Your task to perform on an android device: Add jbl flip 4 to the cart on bestbuy.com, then select checkout. Image 0: 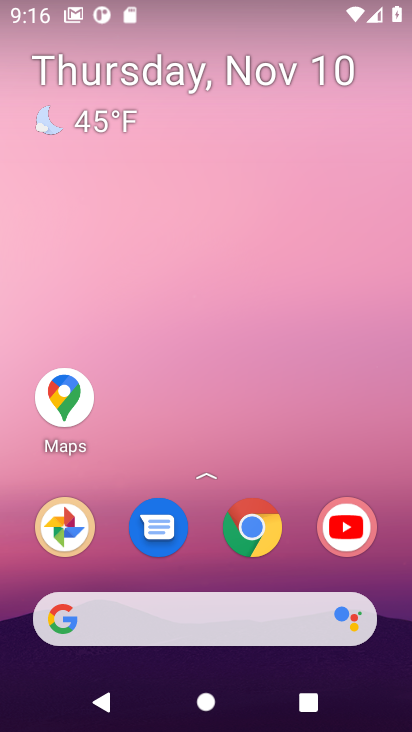
Step 0: drag from (149, 637) to (275, 152)
Your task to perform on an android device: Add jbl flip 4 to the cart on bestbuy.com, then select checkout. Image 1: 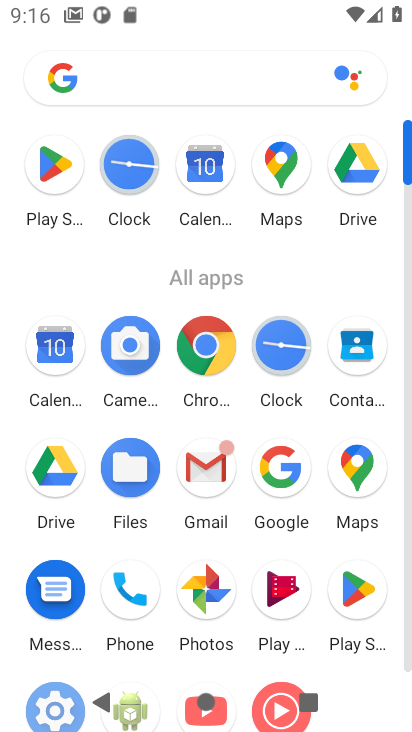
Step 1: click (222, 352)
Your task to perform on an android device: Add jbl flip 4 to the cart on bestbuy.com, then select checkout. Image 2: 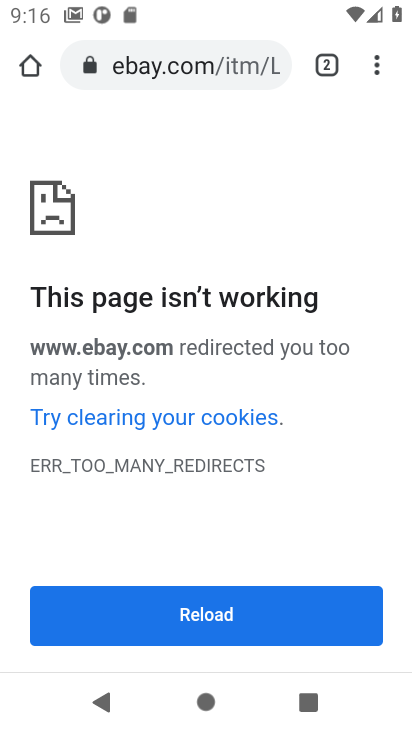
Step 2: click (230, 61)
Your task to perform on an android device: Add jbl flip 4 to the cart on bestbuy.com, then select checkout. Image 3: 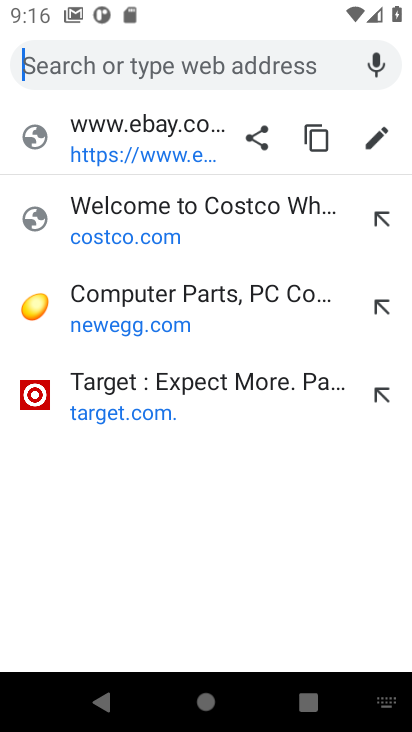
Step 3: type " bestbuy.com"
Your task to perform on an android device: Add jbl flip 4 to the cart on bestbuy.com, then select checkout. Image 4: 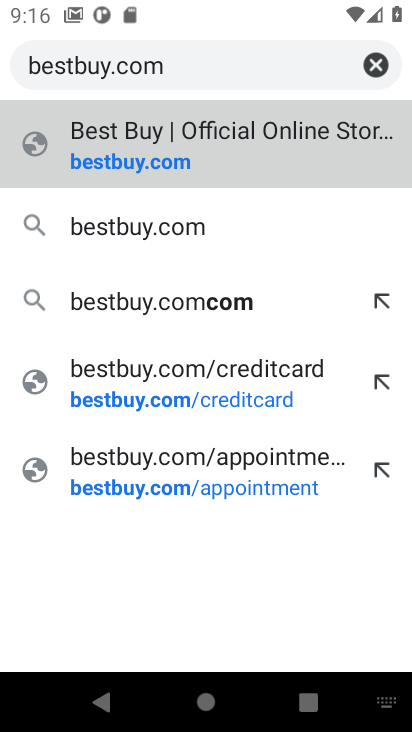
Step 4: press enter
Your task to perform on an android device: Add jbl flip 4 to the cart on bestbuy.com, then select checkout. Image 5: 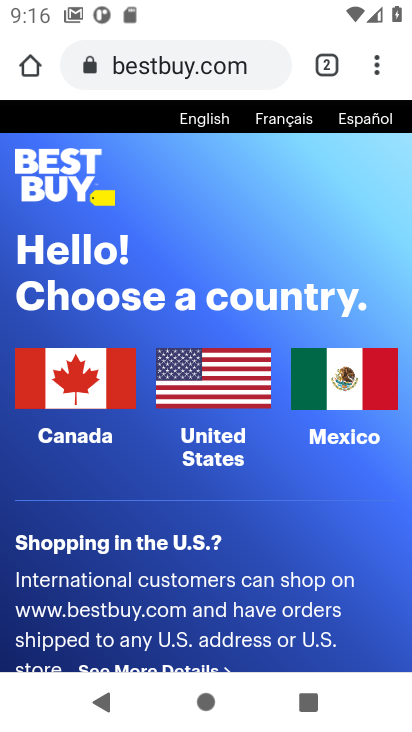
Step 5: click (85, 363)
Your task to perform on an android device: Add jbl flip 4 to the cart on bestbuy.com, then select checkout. Image 6: 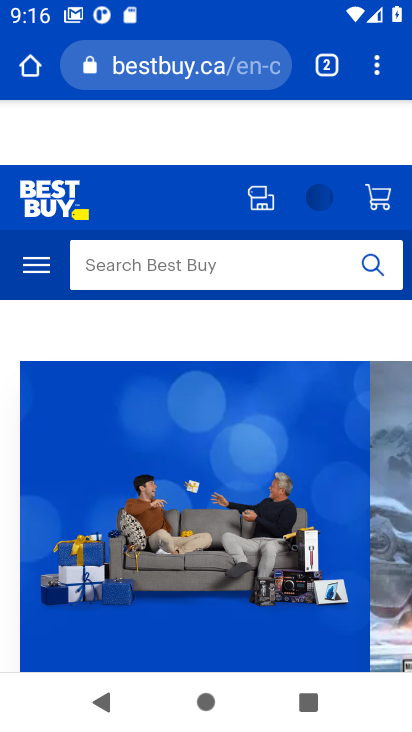
Step 6: click (125, 277)
Your task to perform on an android device: Add jbl flip 4 to the cart on bestbuy.com, then select checkout. Image 7: 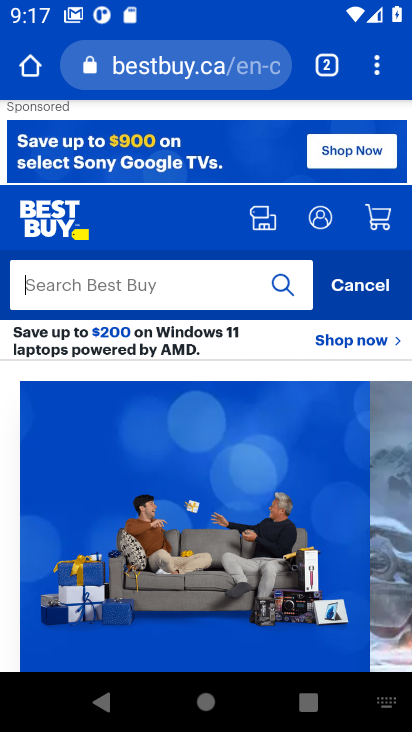
Step 7: type "jbl flip 4"
Your task to perform on an android device: Add jbl flip 4 to the cart on bestbuy.com, then select checkout. Image 8: 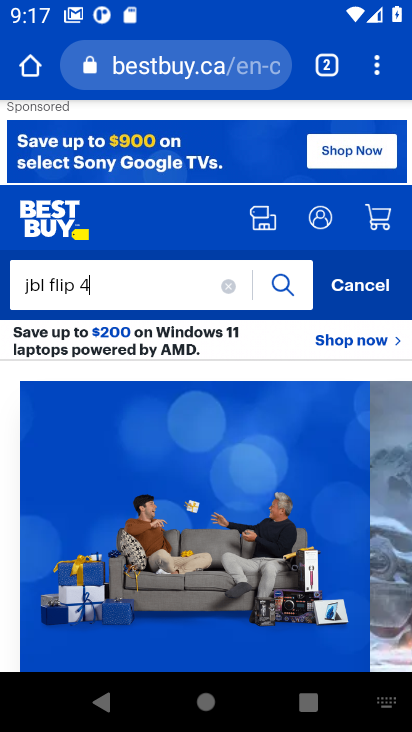
Step 8: press enter
Your task to perform on an android device: Add jbl flip 4 to the cart on bestbuy.com, then select checkout. Image 9: 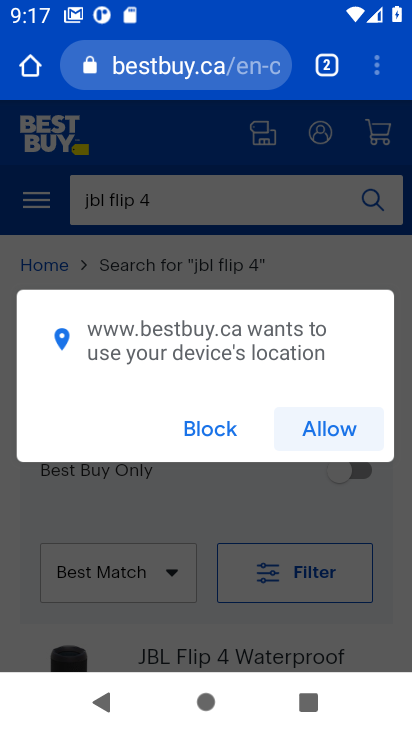
Step 9: click (330, 422)
Your task to perform on an android device: Add jbl flip 4 to the cart on bestbuy.com, then select checkout. Image 10: 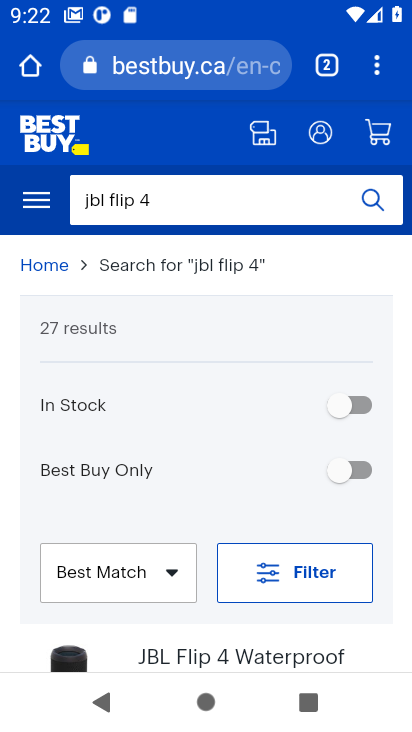
Step 10: drag from (81, 470) to (92, 207)
Your task to perform on an android device: Add jbl flip 4 to the cart on bestbuy.com, then select checkout. Image 11: 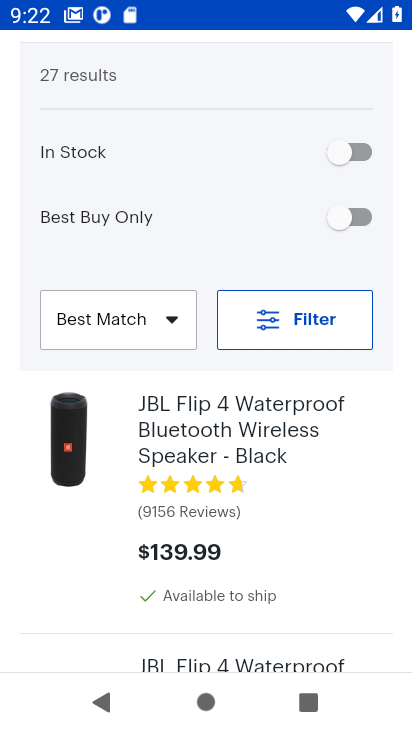
Step 11: click (207, 430)
Your task to perform on an android device: Add jbl flip 4 to the cart on bestbuy.com, then select checkout. Image 12: 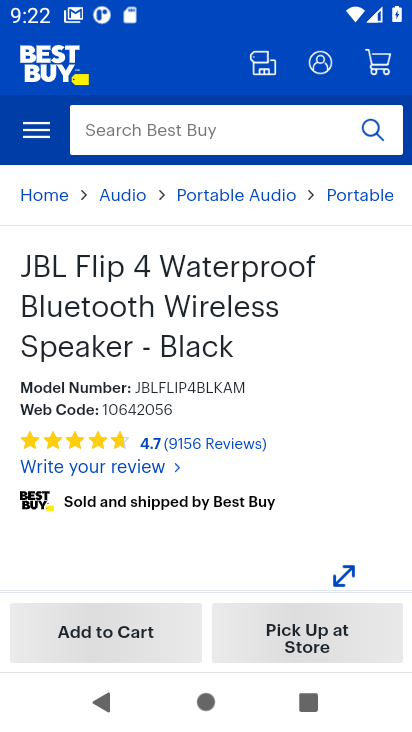
Step 12: drag from (249, 551) to (251, 363)
Your task to perform on an android device: Add jbl flip 4 to the cart on bestbuy.com, then select checkout. Image 13: 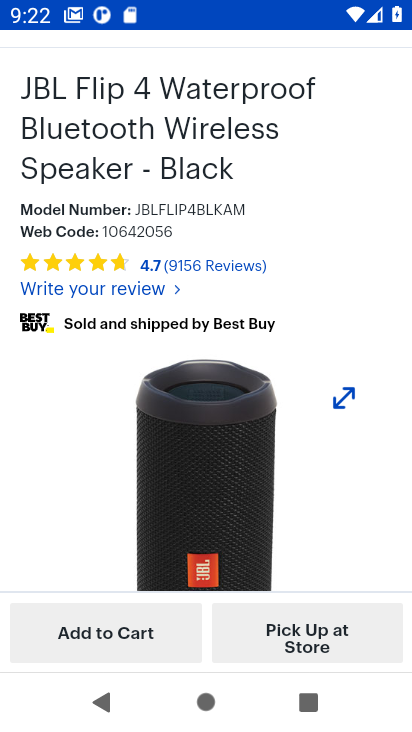
Step 13: click (129, 636)
Your task to perform on an android device: Add jbl flip 4 to the cart on bestbuy.com, then select checkout. Image 14: 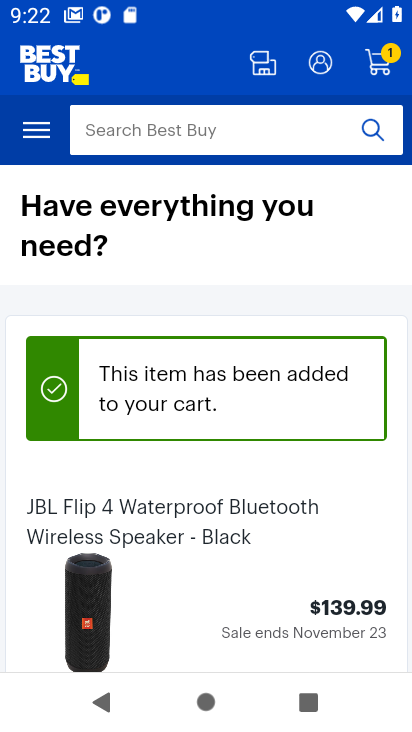
Step 14: click (378, 66)
Your task to perform on an android device: Add jbl flip 4 to the cart on bestbuy.com, then select checkout. Image 15: 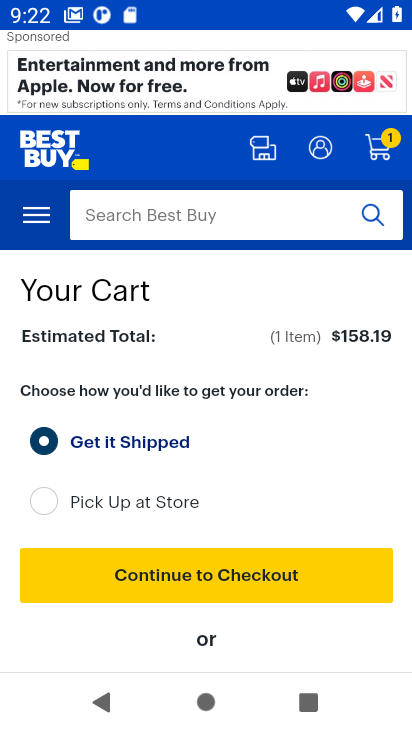
Step 15: click (188, 575)
Your task to perform on an android device: Add jbl flip 4 to the cart on bestbuy.com, then select checkout. Image 16: 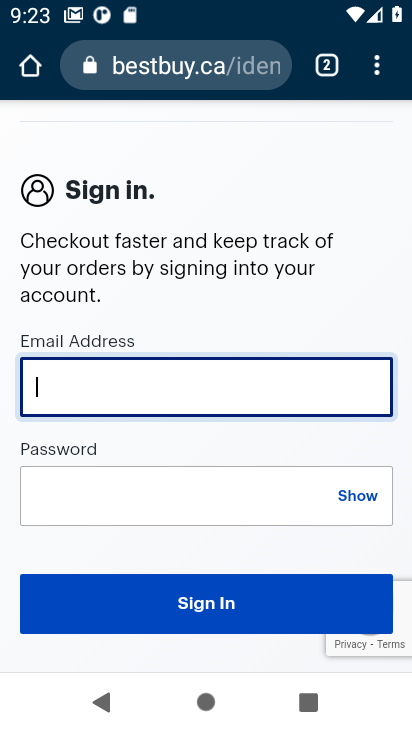
Step 16: task complete